Your task to perform on an android device: Go to ESPN.com Image 0: 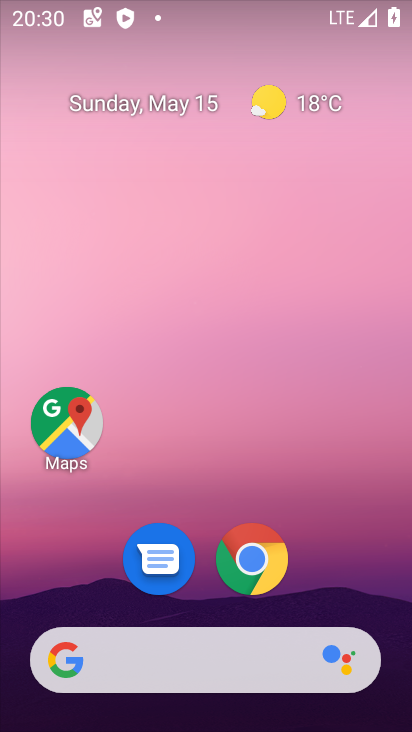
Step 0: click (248, 559)
Your task to perform on an android device: Go to ESPN.com Image 1: 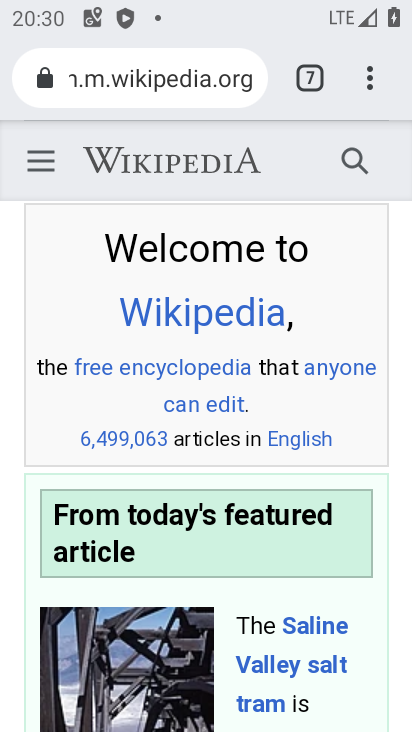
Step 1: click (369, 79)
Your task to perform on an android device: Go to ESPN.com Image 2: 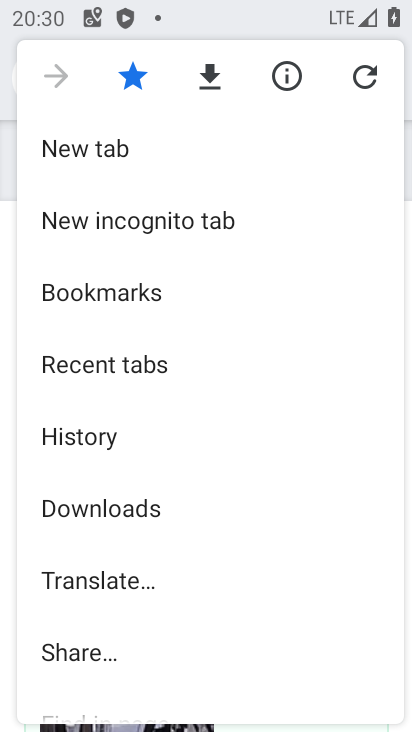
Step 2: click (80, 149)
Your task to perform on an android device: Go to ESPN.com Image 3: 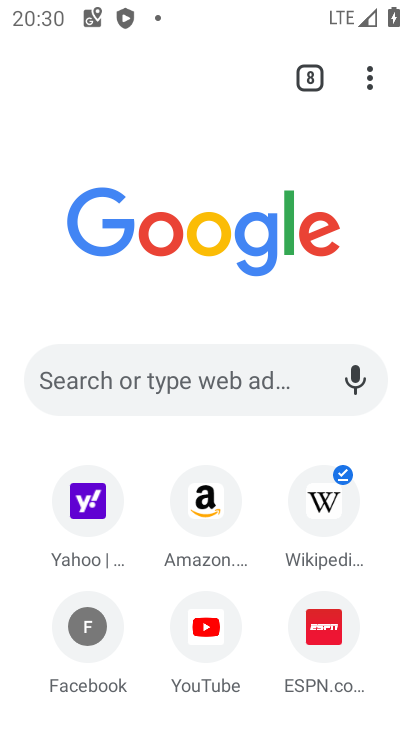
Step 3: click (320, 630)
Your task to perform on an android device: Go to ESPN.com Image 4: 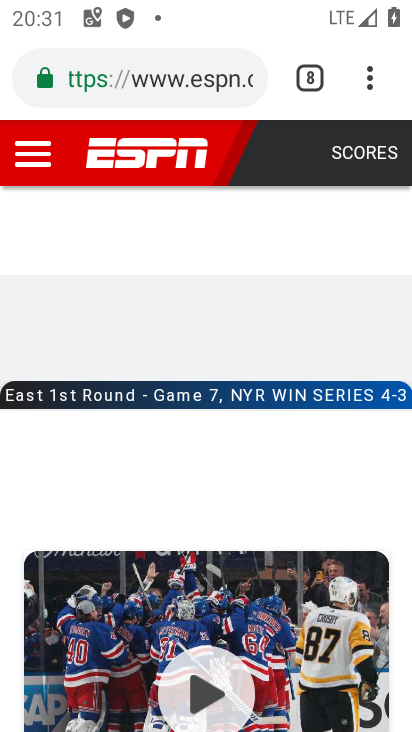
Step 4: task complete